Your task to perform on an android device: Open the phone app and click the voicemail tab. Image 0: 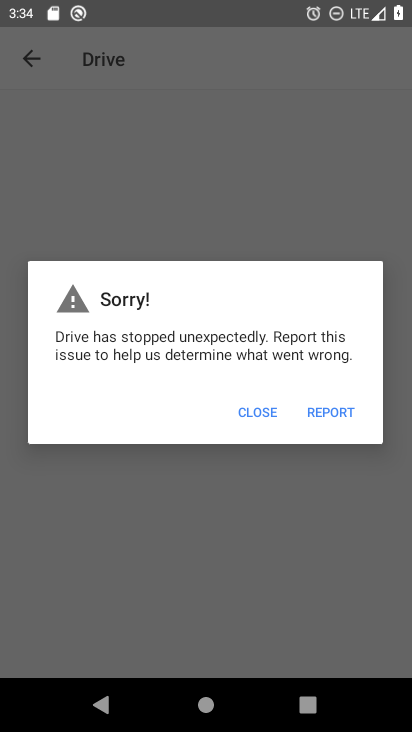
Step 0: press home button
Your task to perform on an android device: Open the phone app and click the voicemail tab. Image 1: 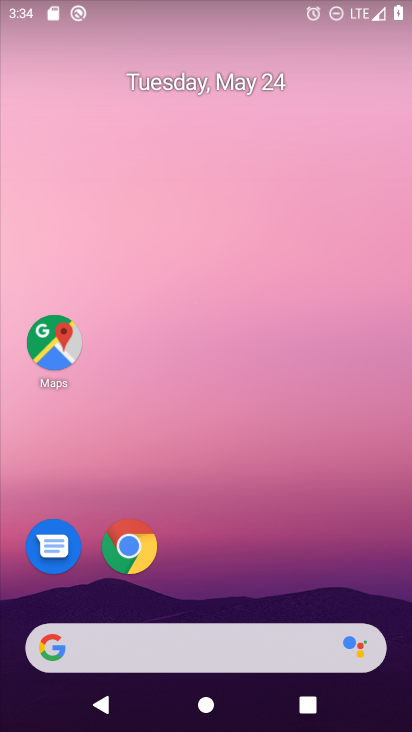
Step 1: drag from (222, 656) to (311, 35)
Your task to perform on an android device: Open the phone app and click the voicemail tab. Image 2: 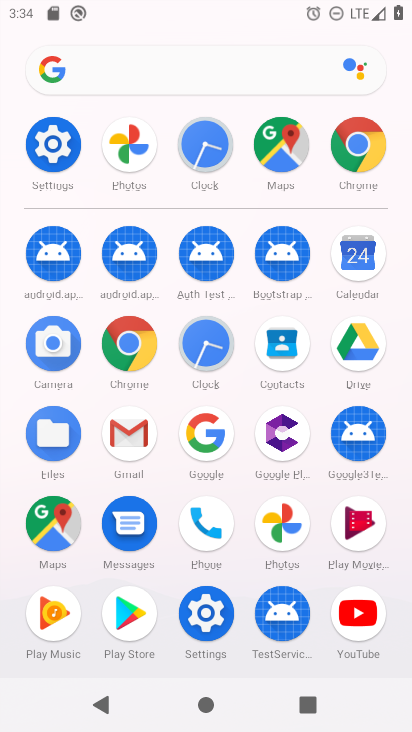
Step 2: click (186, 511)
Your task to perform on an android device: Open the phone app and click the voicemail tab. Image 3: 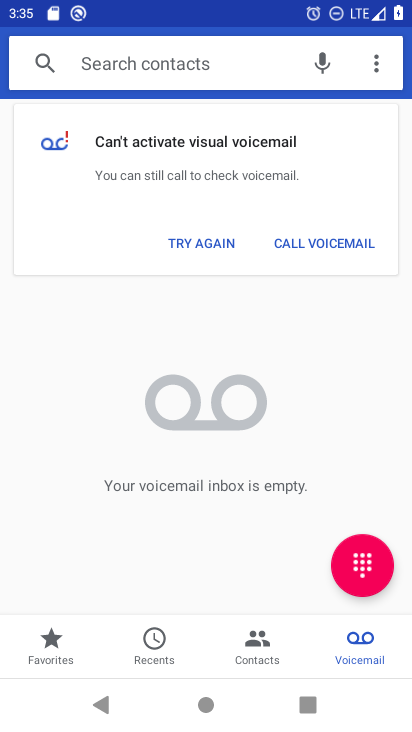
Step 3: click (360, 630)
Your task to perform on an android device: Open the phone app and click the voicemail tab. Image 4: 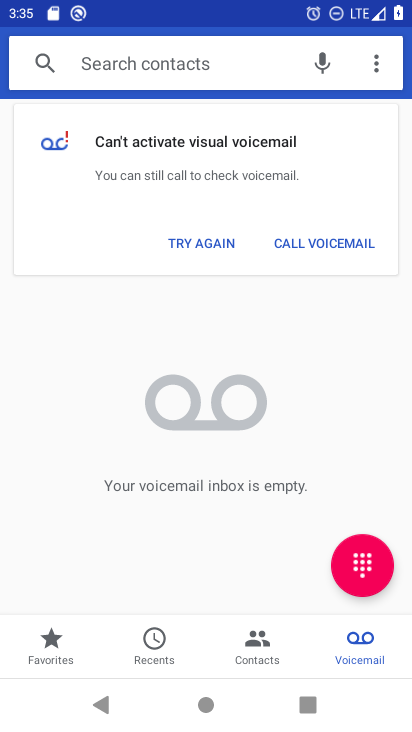
Step 4: task complete